Your task to perform on an android device: change text size in settings app Image 0: 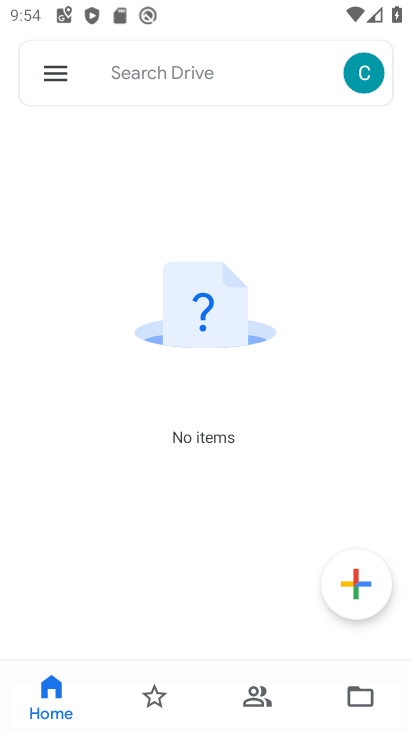
Step 0: press home button
Your task to perform on an android device: change text size in settings app Image 1: 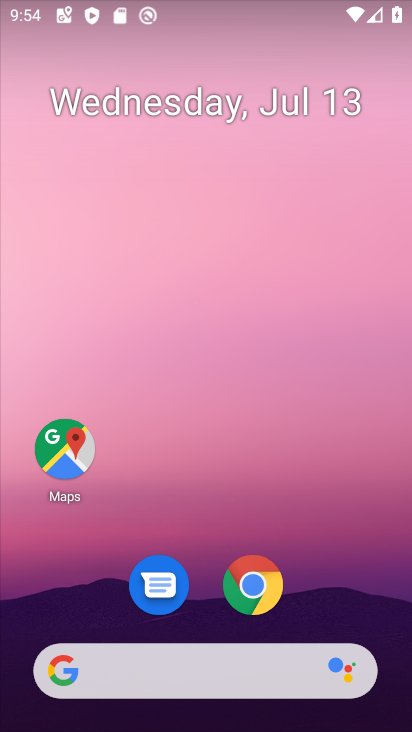
Step 1: drag from (314, 580) to (238, 5)
Your task to perform on an android device: change text size in settings app Image 2: 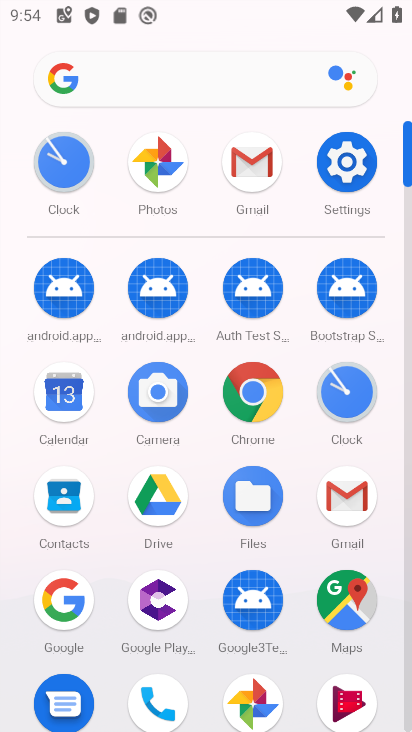
Step 2: click (345, 161)
Your task to perform on an android device: change text size in settings app Image 3: 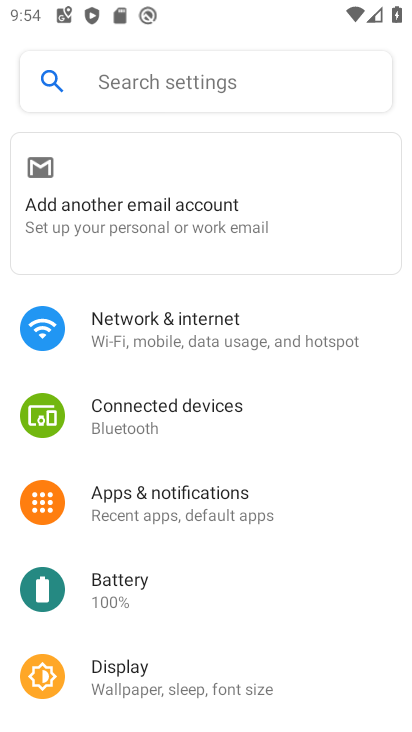
Step 3: drag from (177, 598) to (192, 222)
Your task to perform on an android device: change text size in settings app Image 4: 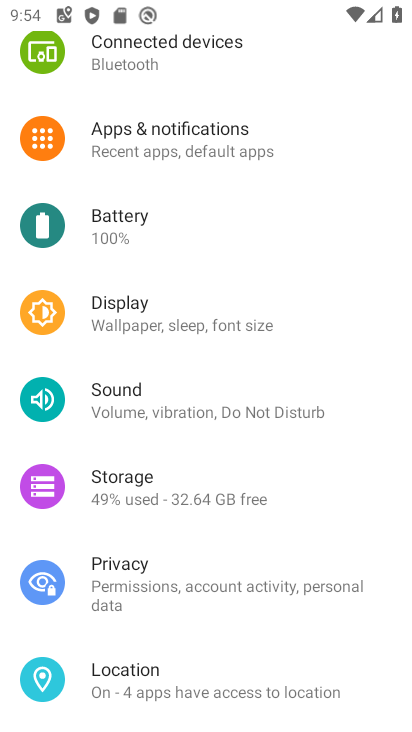
Step 4: click (208, 318)
Your task to perform on an android device: change text size in settings app Image 5: 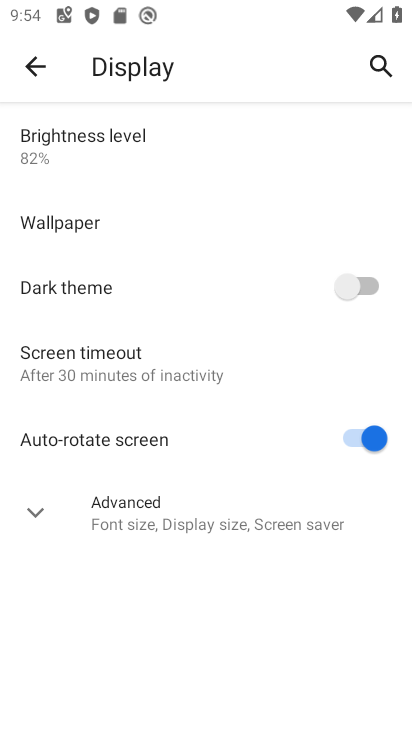
Step 5: click (43, 508)
Your task to perform on an android device: change text size in settings app Image 6: 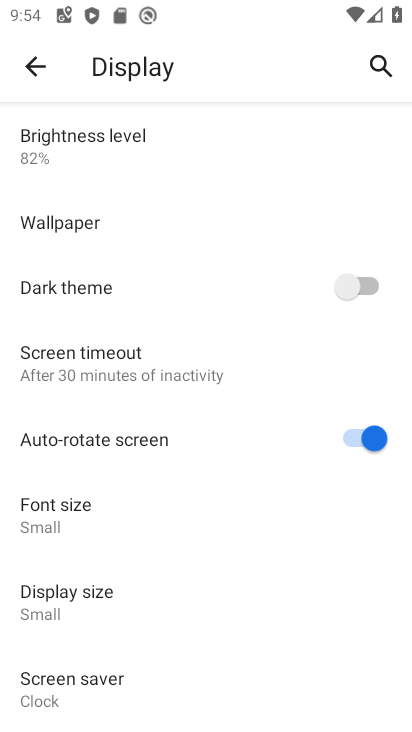
Step 6: click (45, 511)
Your task to perform on an android device: change text size in settings app Image 7: 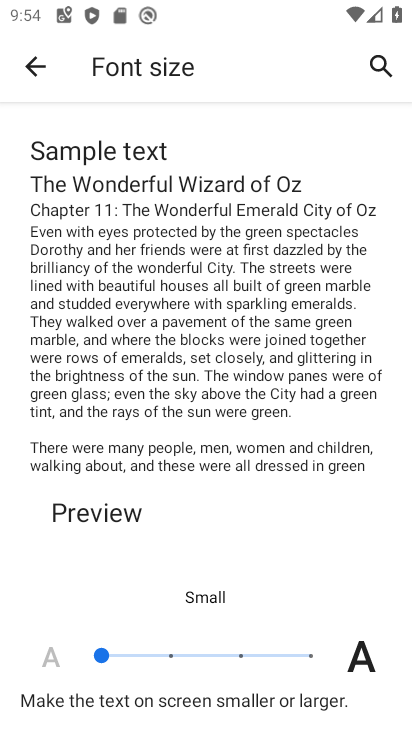
Step 7: click (171, 651)
Your task to perform on an android device: change text size in settings app Image 8: 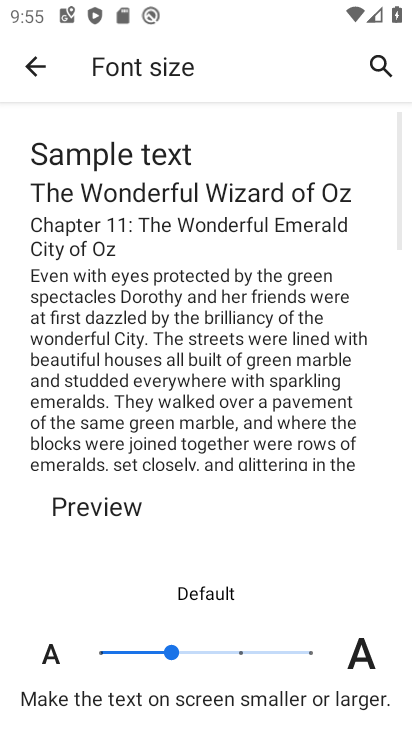
Step 8: click (31, 61)
Your task to perform on an android device: change text size in settings app Image 9: 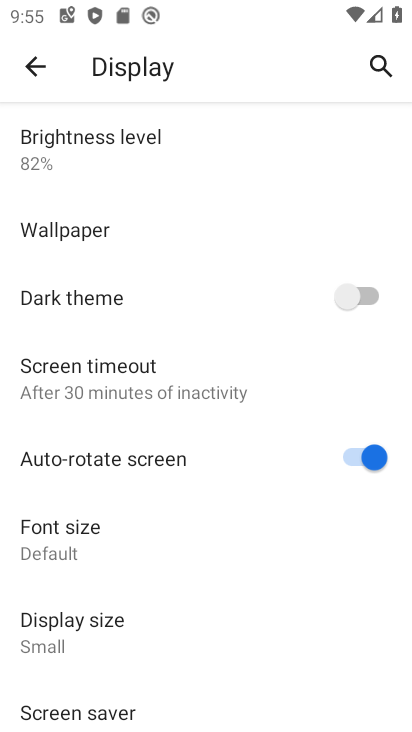
Step 9: task complete